Your task to perform on an android device: check battery use Image 0: 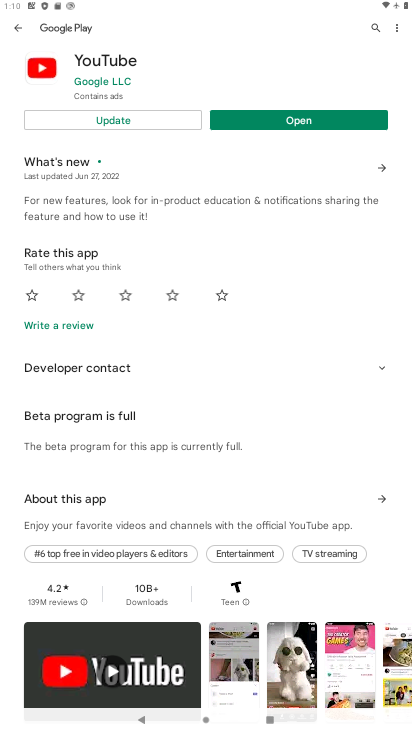
Step 0: press home button
Your task to perform on an android device: check battery use Image 1: 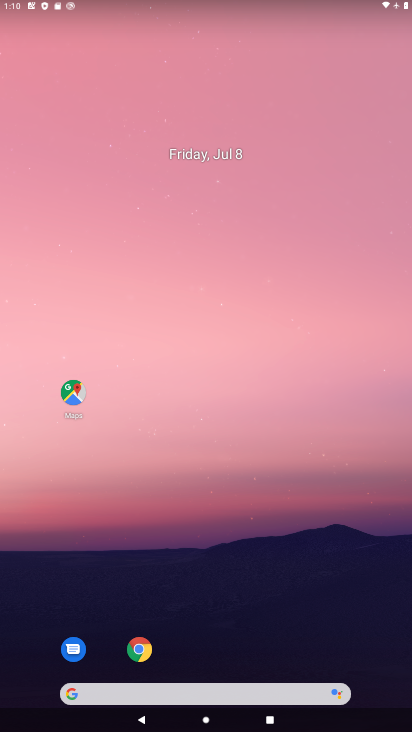
Step 1: drag from (33, 713) to (210, 299)
Your task to perform on an android device: check battery use Image 2: 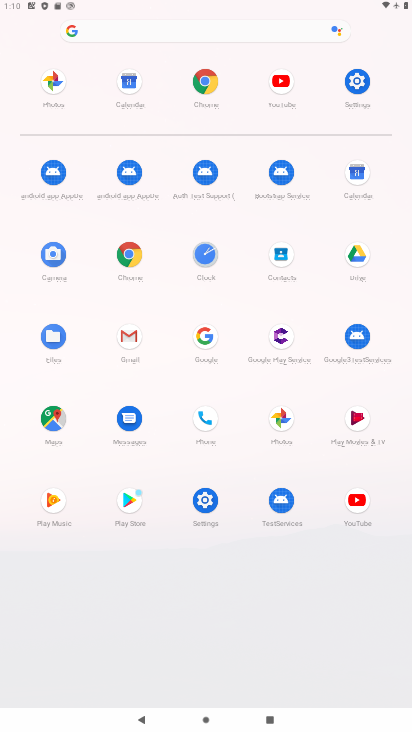
Step 2: click (214, 499)
Your task to perform on an android device: check battery use Image 3: 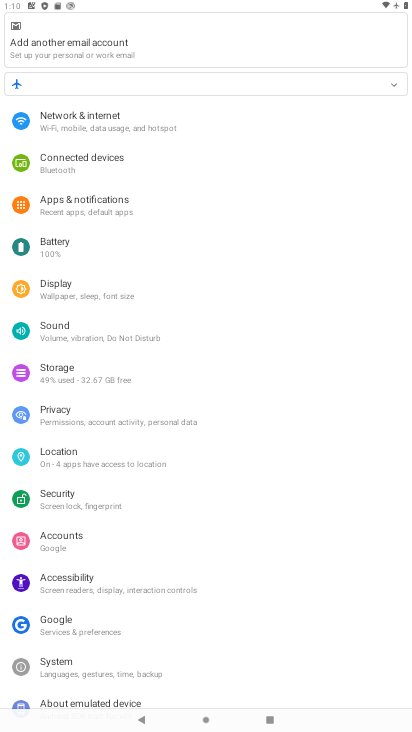
Step 3: click (57, 243)
Your task to perform on an android device: check battery use Image 4: 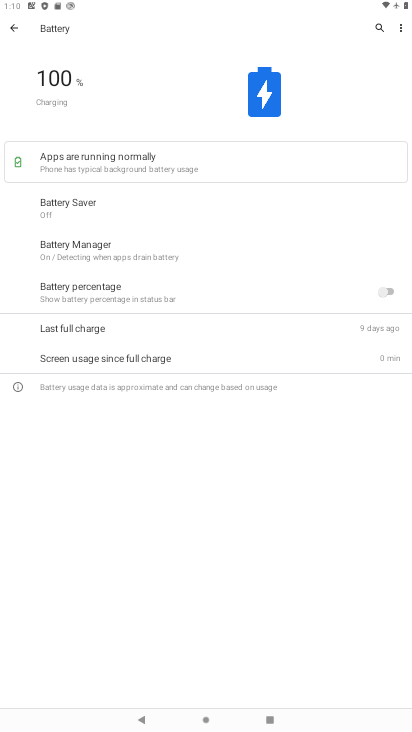
Step 4: task complete